Your task to perform on an android device: change the clock display to show seconds Image 0: 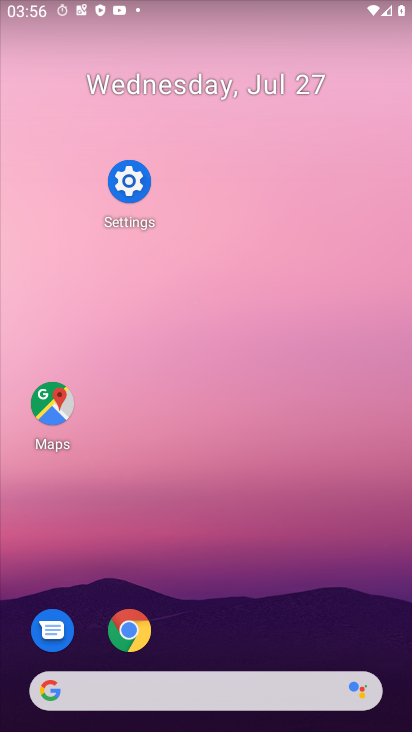
Step 0: drag from (216, 670) to (188, 326)
Your task to perform on an android device: change the clock display to show seconds Image 1: 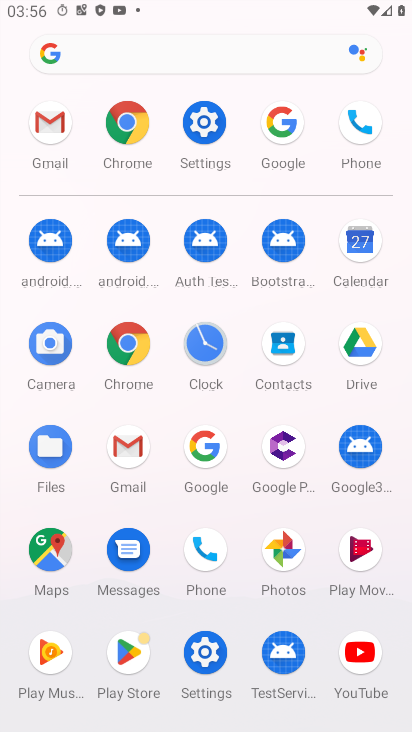
Step 1: click (199, 355)
Your task to perform on an android device: change the clock display to show seconds Image 2: 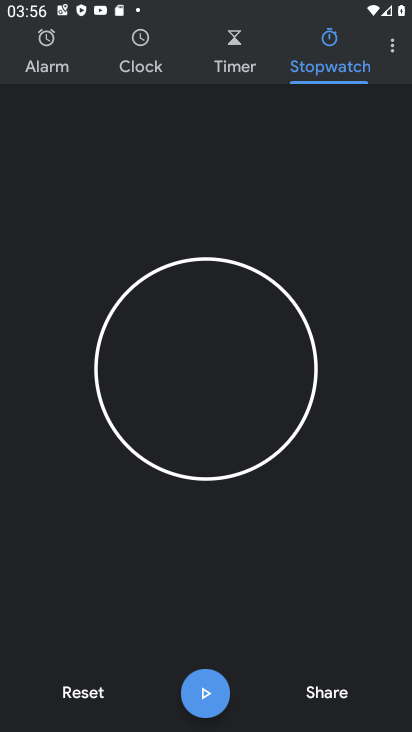
Step 2: click (388, 49)
Your task to perform on an android device: change the clock display to show seconds Image 3: 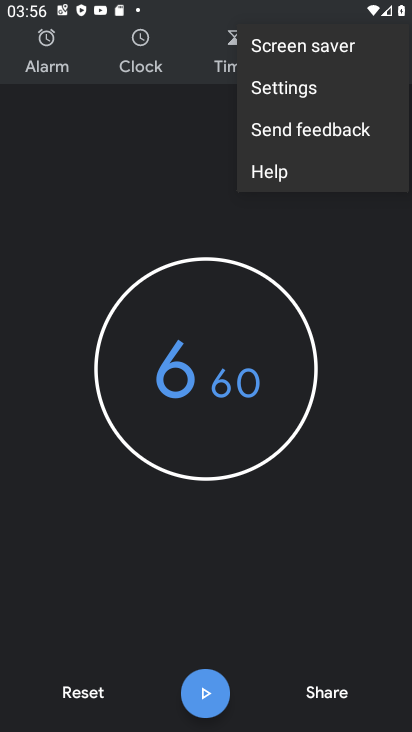
Step 3: click (288, 93)
Your task to perform on an android device: change the clock display to show seconds Image 4: 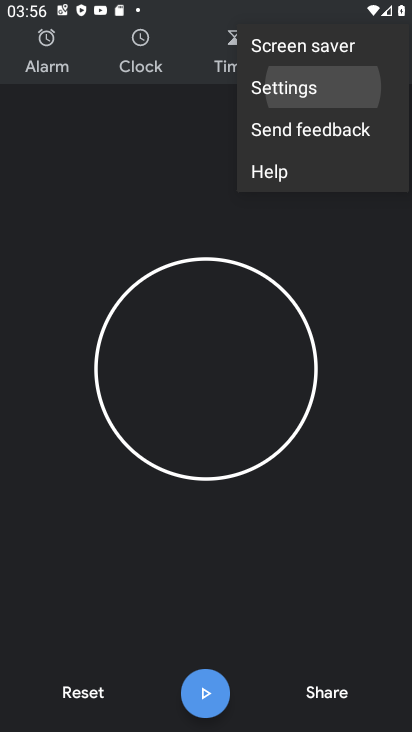
Step 4: click (285, 95)
Your task to perform on an android device: change the clock display to show seconds Image 5: 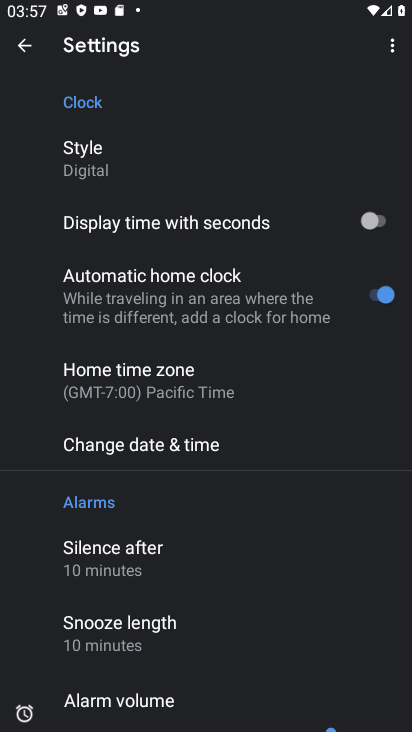
Step 5: click (363, 219)
Your task to perform on an android device: change the clock display to show seconds Image 6: 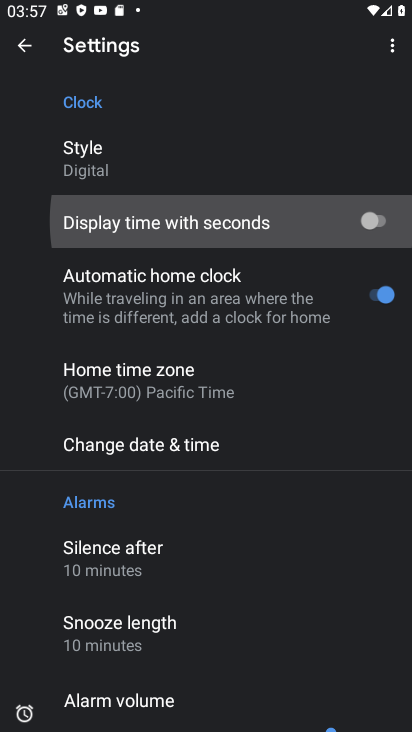
Step 6: click (363, 221)
Your task to perform on an android device: change the clock display to show seconds Image 7: 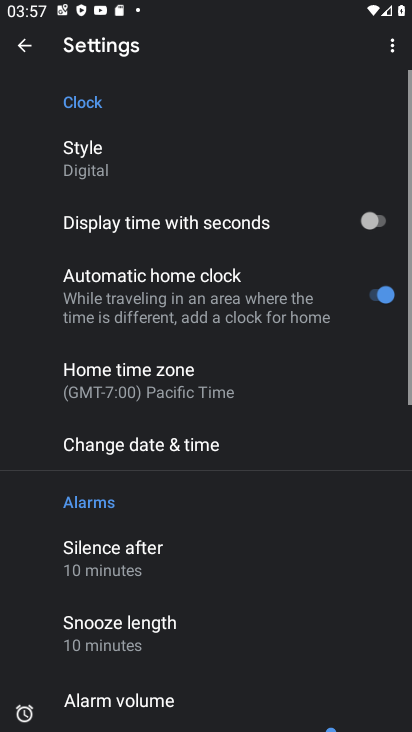
Step 7: click (375, 220)
Your task to perform on an android device: change the clock display to show seconds Image 8: 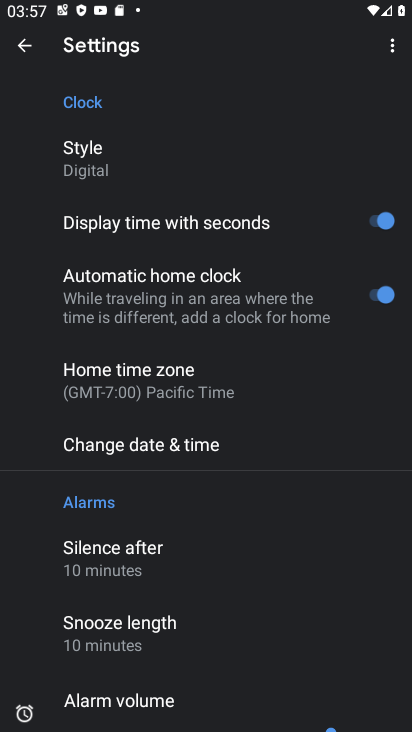
Step 8: task complete